Your task to perform on an android device: add a label to a message in the gmail app Image 0: 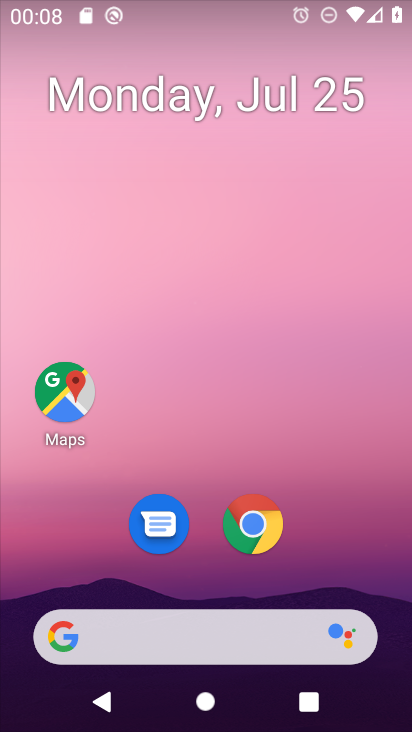
Step 0: drag from (237, 631) to (302, 207)
Your task to perform on an android device: add a label to a message in the gmail app Image 1: 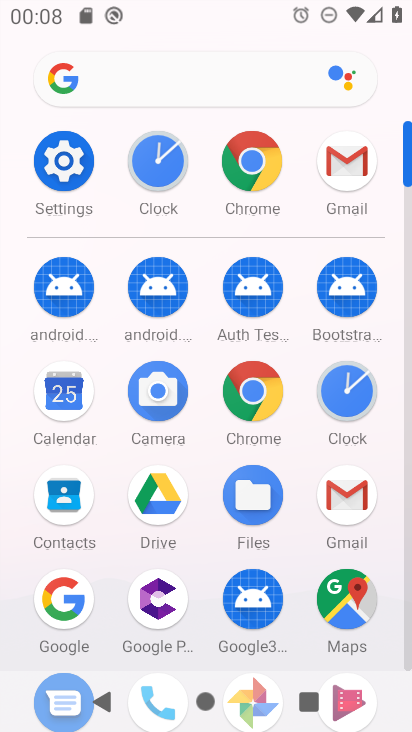
Step 1: click (351, 165)
Your task to perform on an android device: add a label to a message in the gmail app Image 2: 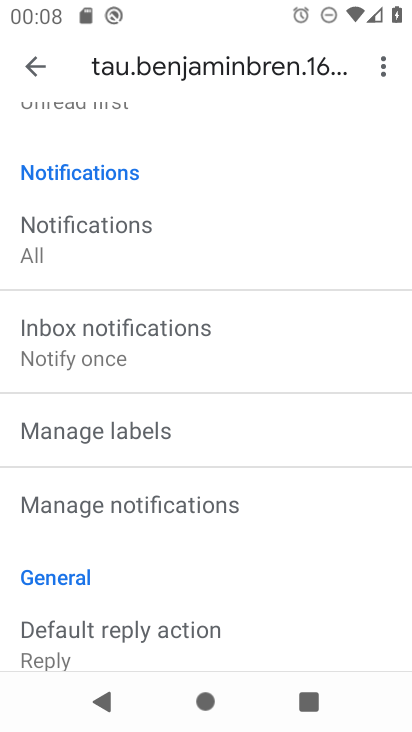
Step 2: click (32, 69)
Your task to perform on an android device: add a label to a message in the gmail app Image 3: 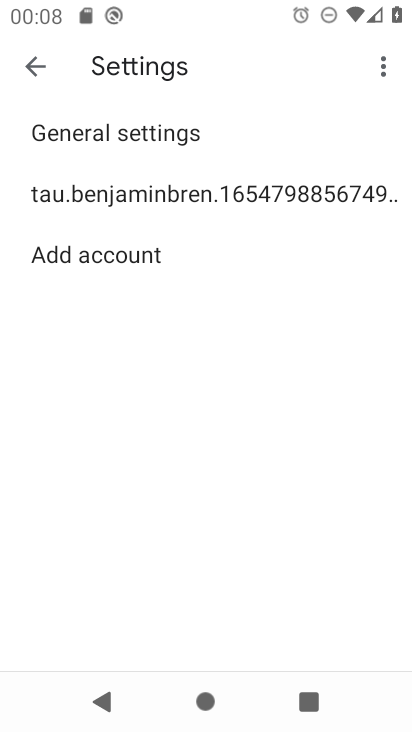
Step 3: click (32, 68)
Your task to perform on an android device: add a label to a message in the gmail app Image 4: 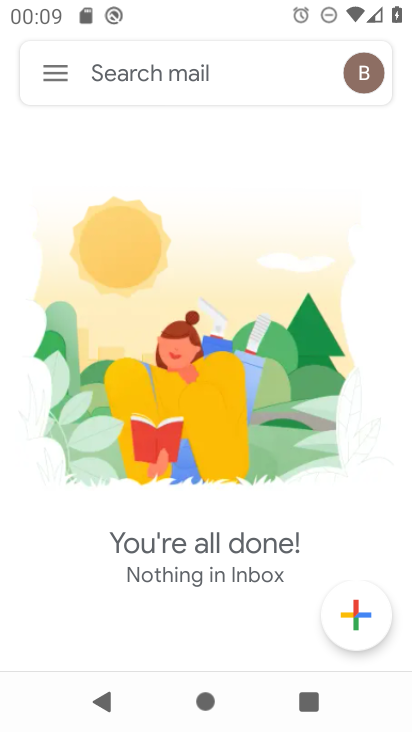
Step 4: task complete